Your task to perform on an android device: check out phone information Image 0: 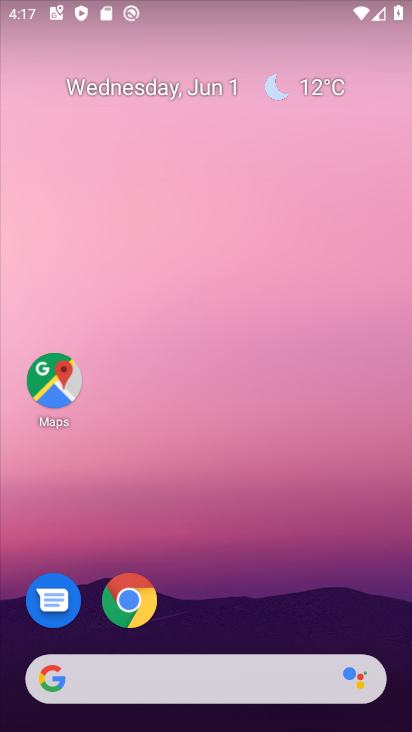
Step 0: drag from (379, 623) to (303, 117)
Your task to perform on an android device: check out phone information Image 1: 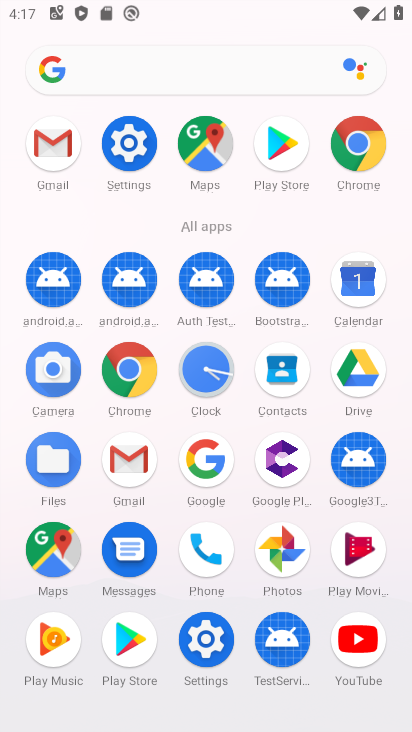
Step 1: click (208, 639)
Your task to perform on an android device: check out phone information Image 2: 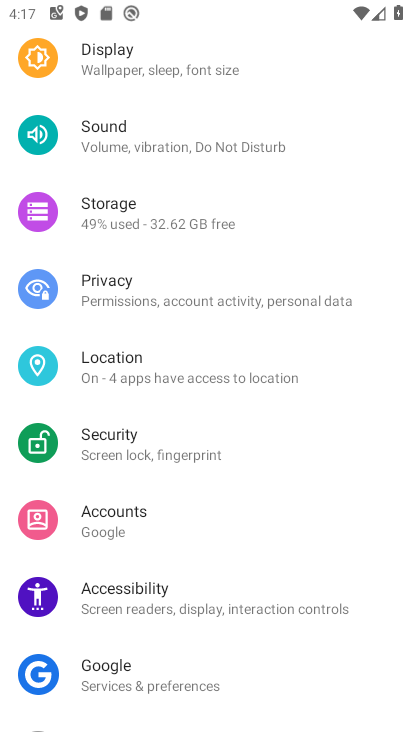
Step 2: drag from (345, 524) to (339, 295)
Your task to perform on an android device: check out phone information Image 3: 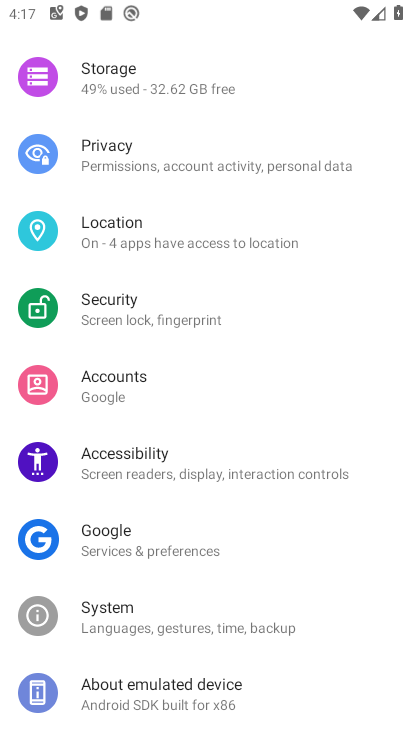
Step 3: drag from (337, 640) to (334, 335)
Your task to perform on an android device: check out phone information Image 4: 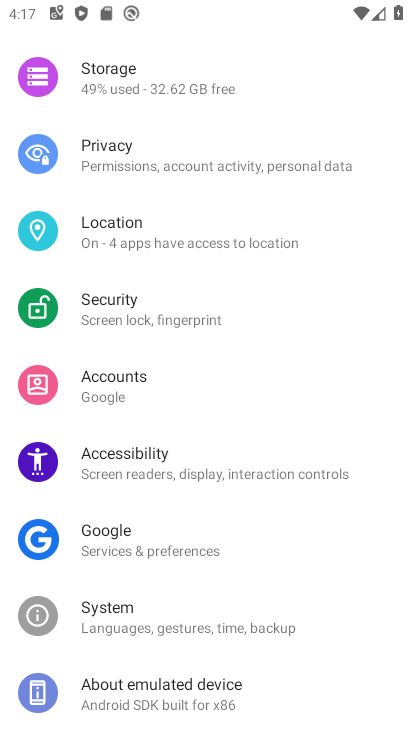
Step 4: click (121, 679)
Your task to perform on an android device: check out phone information Image 5: 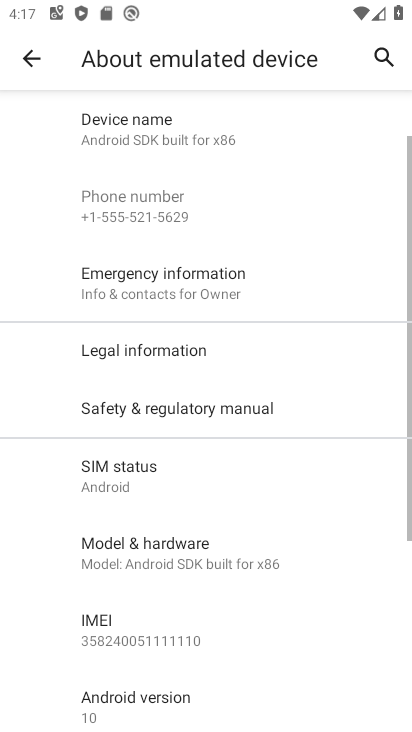
Step 5: task complete